Your task to perform on an android device: turn off location Image 0: 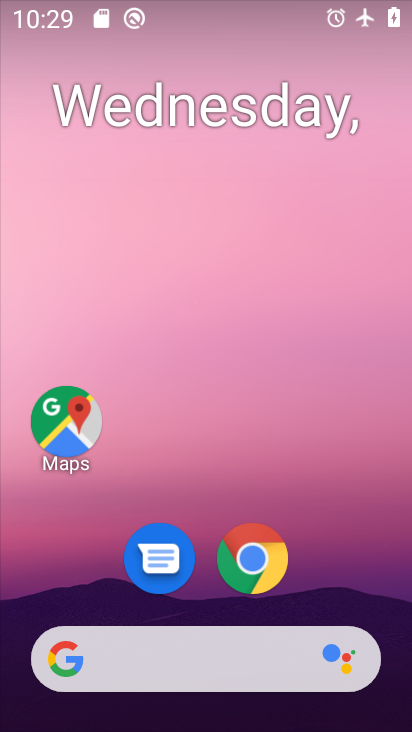
Step 0: drag from (358, 551) to (343, 142)
Your task to perform on an android device: turn off location Image 1: 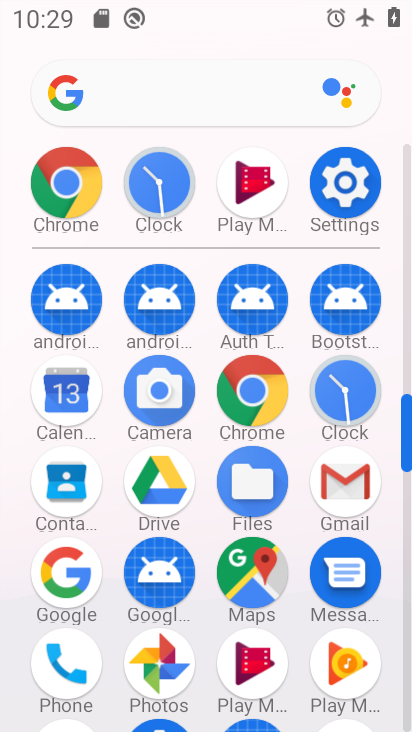
Step 1: click (360, 208)
Your task to perform on an android device: turn off location Image 2: 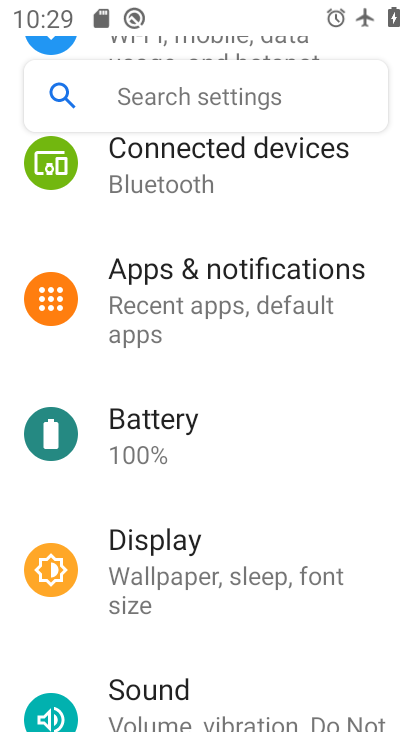
Step 2: drag from (361, 219) to (375, 397)
Your task to perform on an android device: turn off location Image 3: 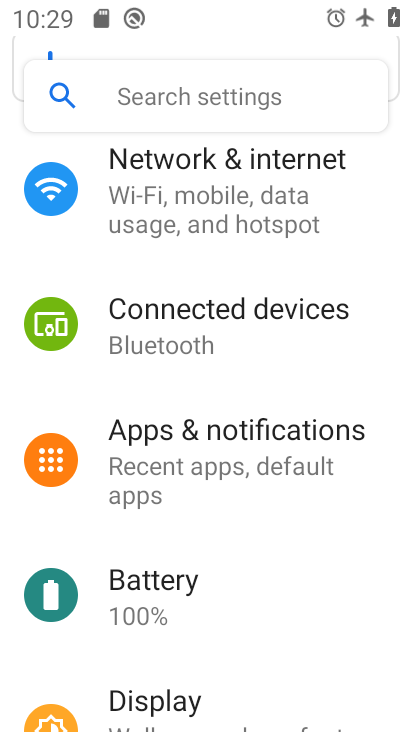
Step 3: drag from (370, 264) to (374, 416)
Your task to perform on an android device: turn off location Image 4: 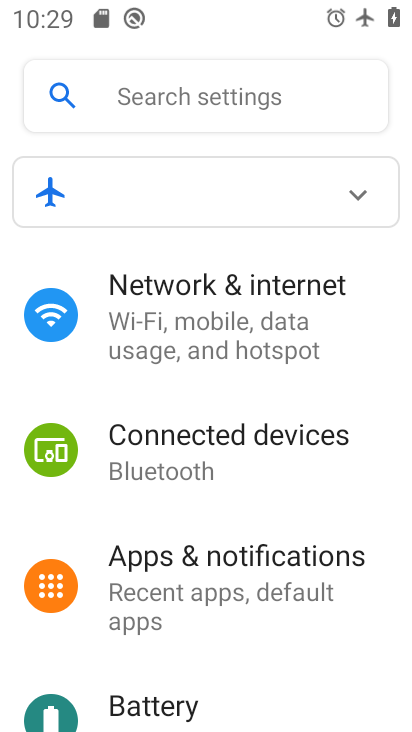
Step 4: drag from (369, 518) to (371, 391)
Your task to perform on an android device: turn off location Image 5: 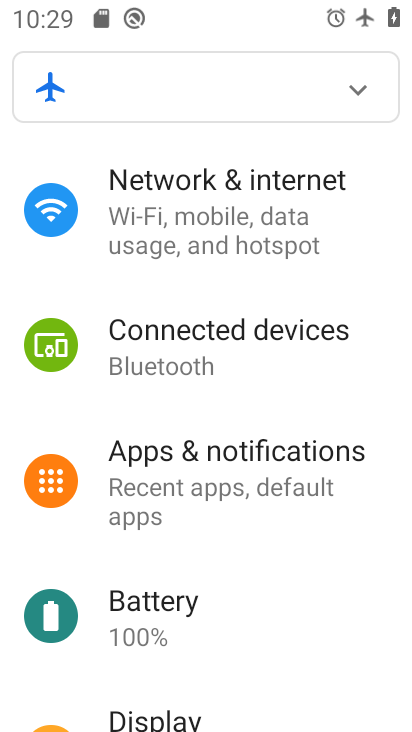
Step 5: drag from (332, 602) to (323, 476)
Your task to perform on an android device: turn off location Image 6: 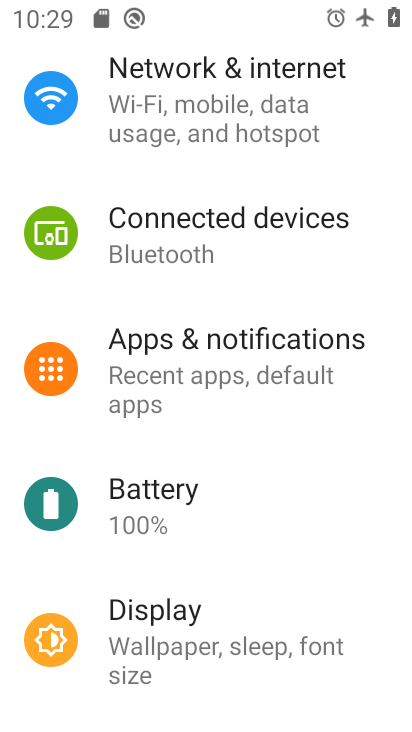
Step 6: drag from (331, 533) to (338, 444)
Your task to perform on an android device: turn off location Image 7: 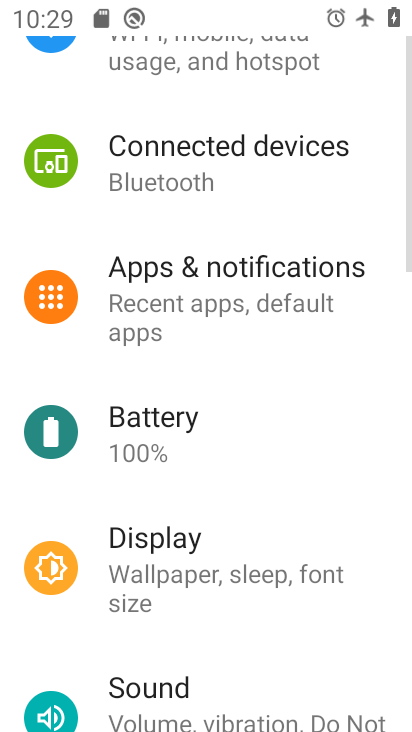
Step 7: drag from (337, 611) to (342, 498)
Your task to perform on an android device: turn off location Image 8: 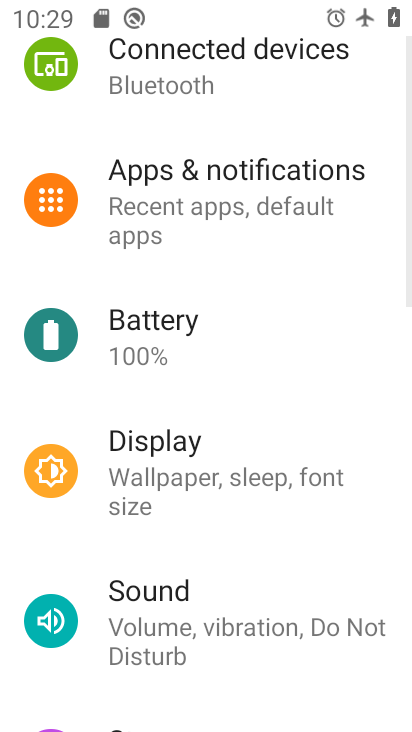
Step 8: drag from (341, 560) to (341, 461)
Your task to perform on an android device: turn off location Image 9: 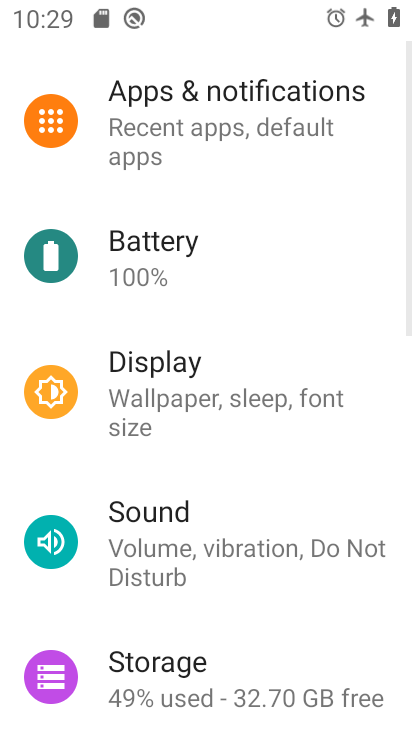
Step 9: drag from (332, 583) to (332, 443)
Your task to perform on an android device: turn off location Image 10: 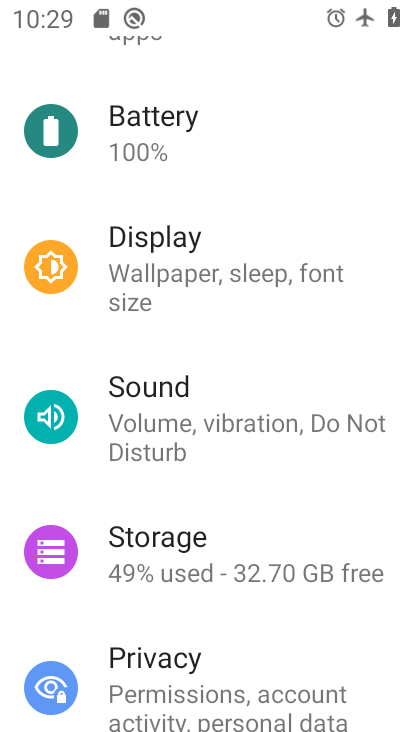
Step 10: drag from (323, 521) to (315, 377)
Your task to perform on an android device: turn off location Image 11: 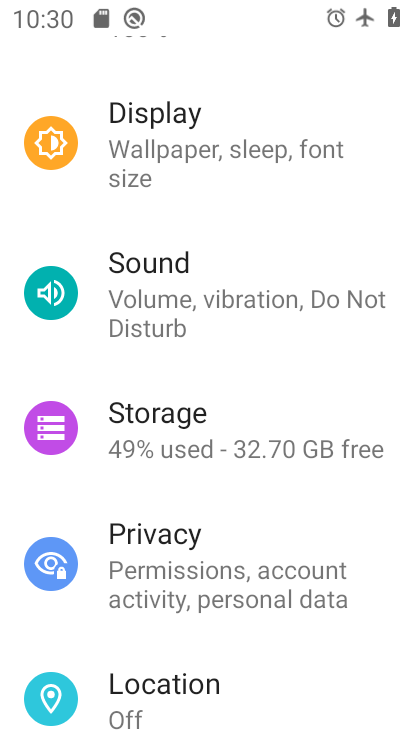
Step 11: drag from (321, 646) to (304, 484)
Your task to perform on an android device: turn off location Image 12: 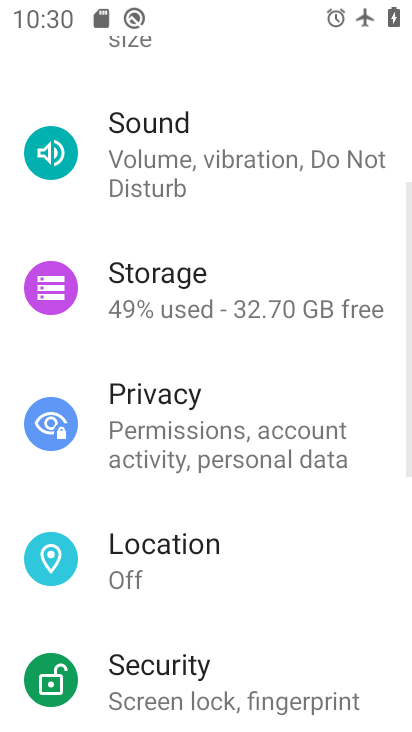
Step 12: click (293, 583)
Your task to perform on an android device: turn off location Image 13: 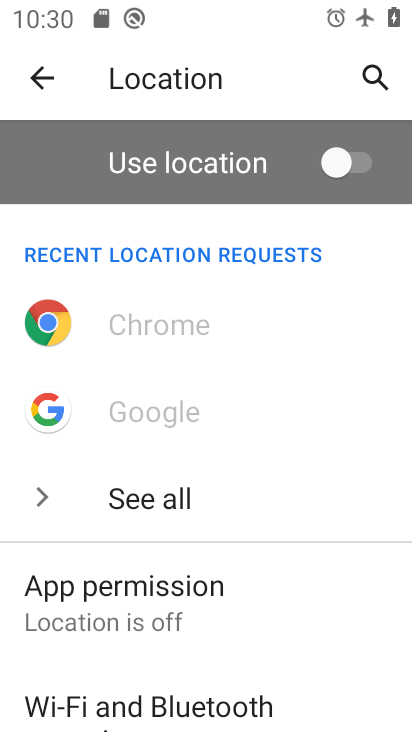
Step 13: task complete